Your task to perform on an android device: add a contact Image 0: 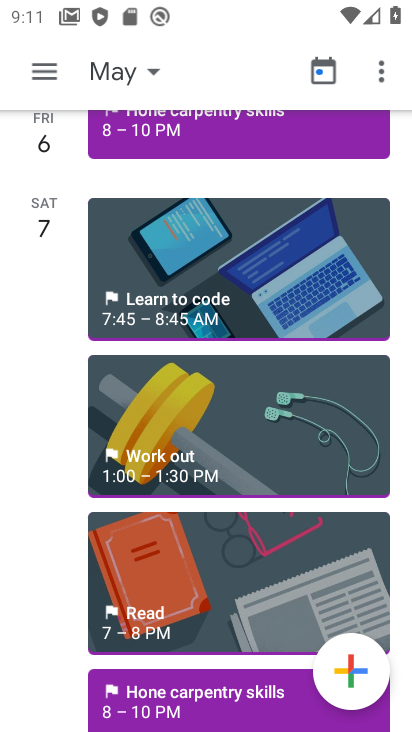
Step 0: press home button
Your task to perform on an android device: add a contact Image 1: 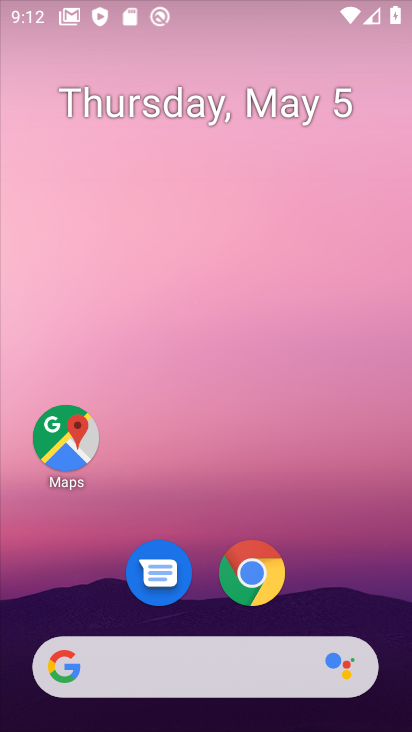
Step 1: drag from (196, 557) to (282, 60)
Your task to perform on an android device: add a contact Image 2: 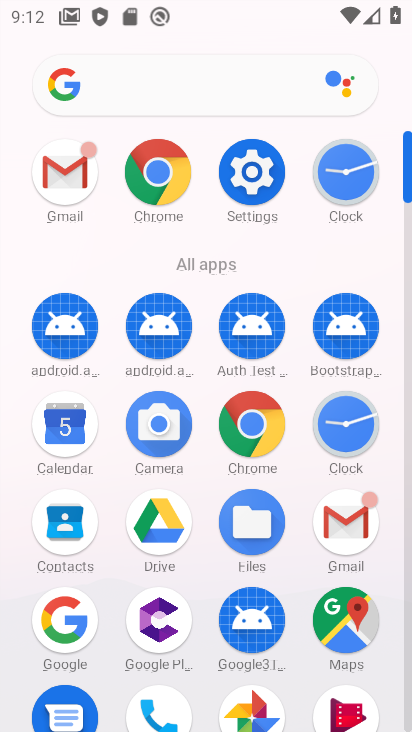
Step 2: click (70, 538)
Your task to perform on an android device: add a contact Image 3: 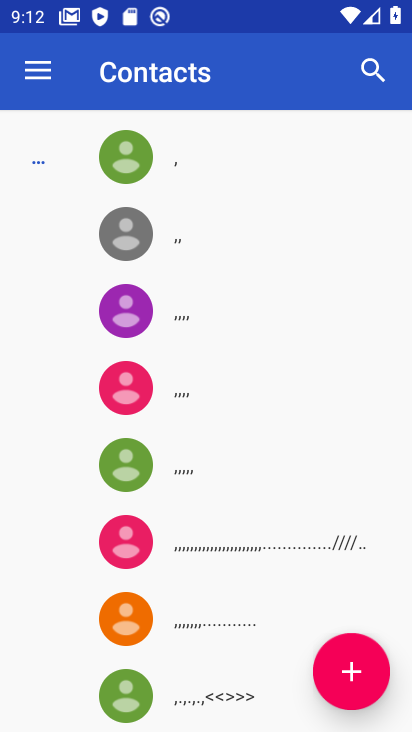
Step 3: click (316, 677)
Your task to perform on an android device: add a contact Image 4: 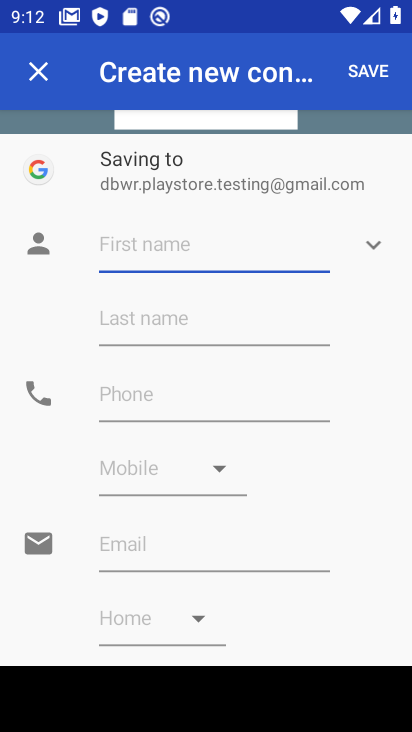
Step 4: click (168, 252)
Your task to perform on an android device: add a contact Image 5: 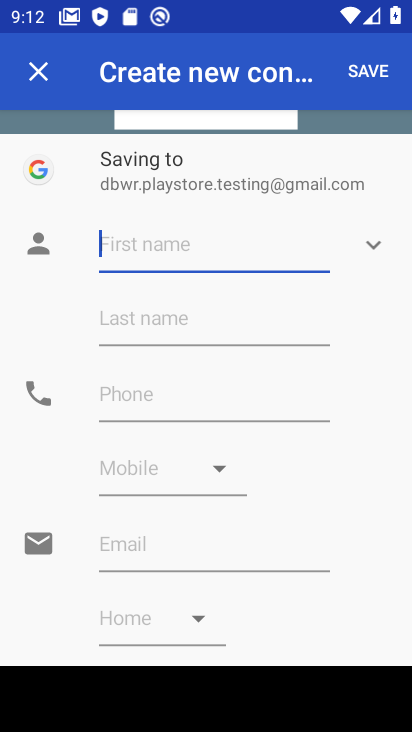
Step 5: type "gvhv"
Your task to perform on an android device: add a contact Image 6: 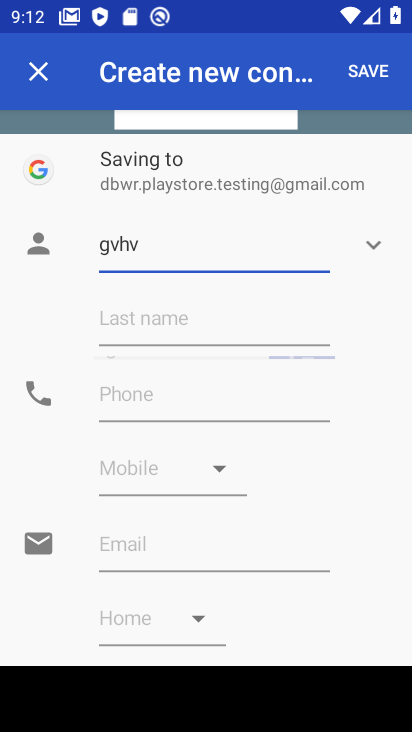
Step 6: click (164, 304)
Your task to perform on an android device: add a contact Image 7: 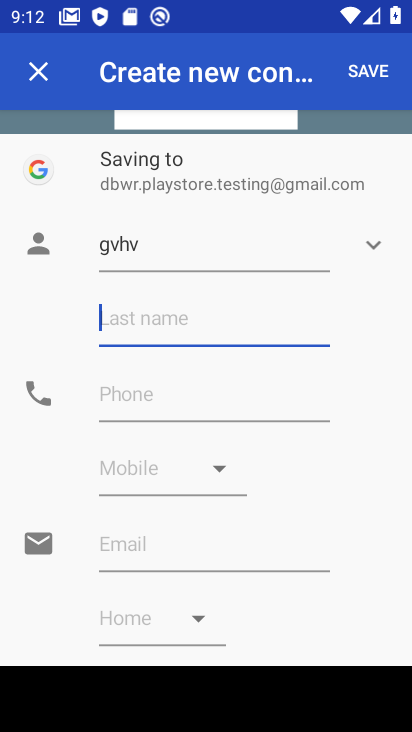
Step 7: click (170, 409)
Your task to perform on an android device: add a contact Image 8: 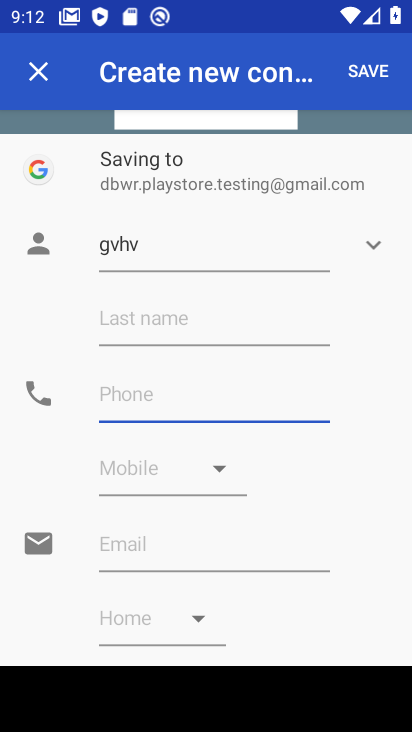
Step 8: type "78787"
Your task to perform on an android device: add a contact Image 9: 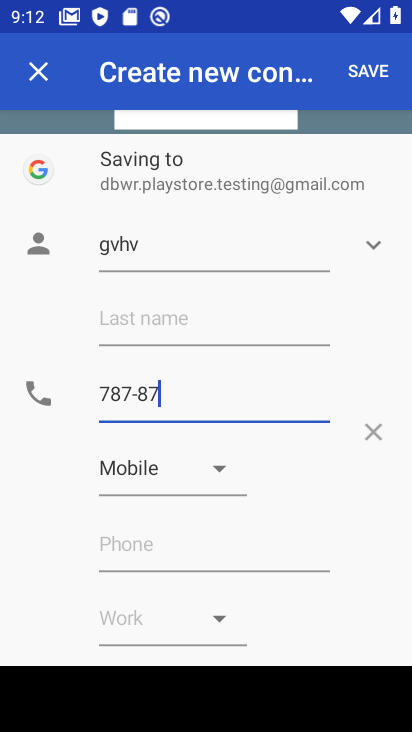
Step 9: click (359, 66)
Your task to perform on an android device: add a contact Image 10: 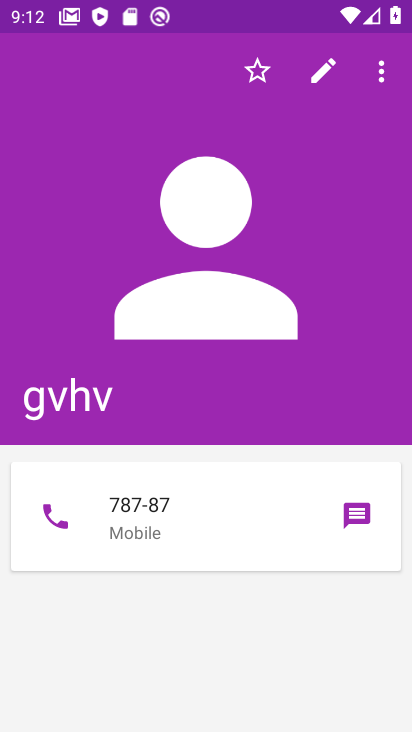
Step 10: task complete